Your task to perform on an android device: install app "Adobe Acrobat Reader: Edit PDF" Image 0: 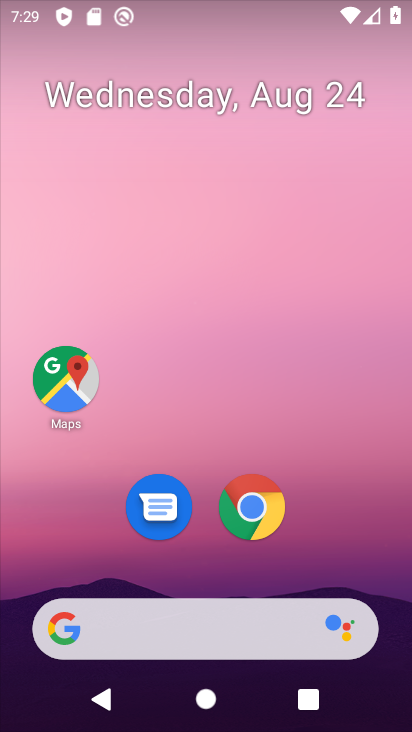
Step 0: drag from (381, 577) to (379, 60)
Your task to perform on an android device: install app "Adobe Acrobat Reader: Edit PDF" Image 1: 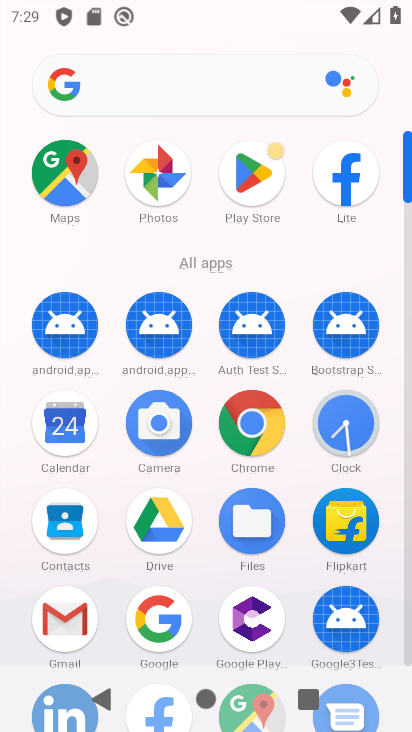
Step 1: click (251, 171)
Your task to perform on an android device: install app "Adobe Acrobat Reader: Edit PDF" Image 2: 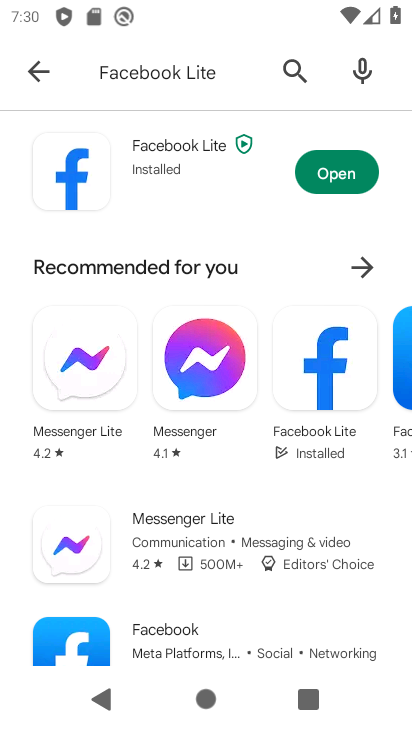
Step 2: press back button
Your task to perform on an android device: install app "Adobe Acrobat Reader: Edit PDF" Image 3: 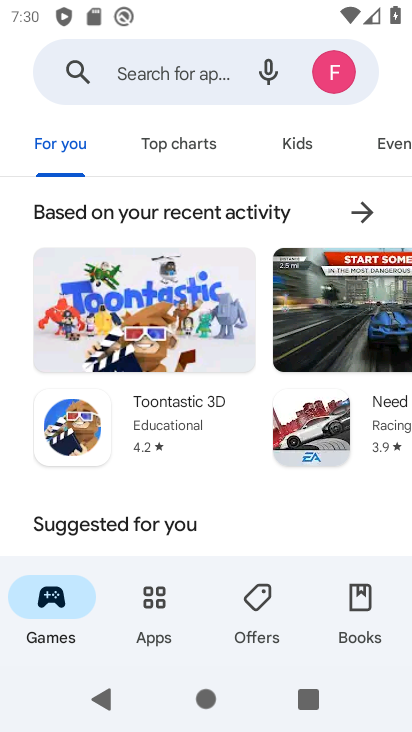
Step 3: click (161, 74)
Your task to perform on an android device: install app "Adobe Acrobat Reader: Edit PDF" Image 4: 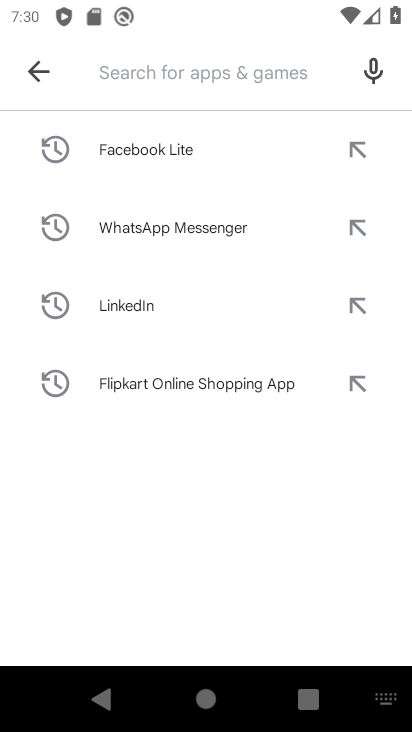
Step 4: type "Adobe Acrobat Reader: Edit PDF"
Your task to perform on an android device: install app "Adobe Acrobat Reader: Edit PDF" Image 5: 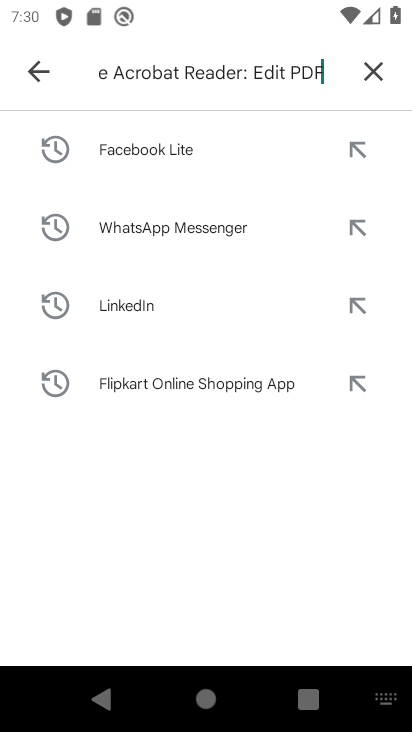
Step 5: press enter
Your task to perform on an android device: install app "Adobe Acrobat Reader: Edit PDF" Image 6: 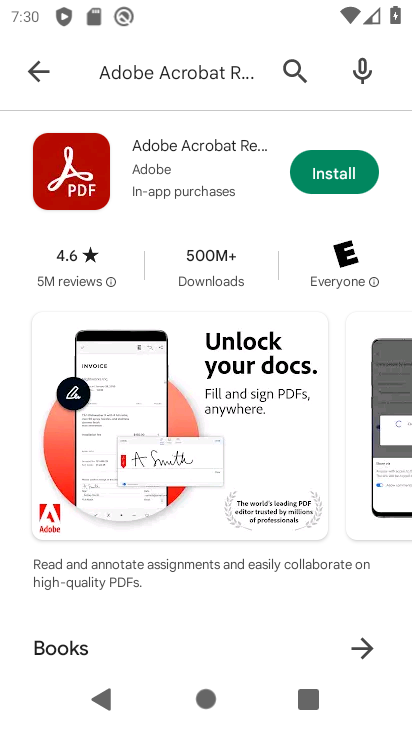
Step 6: click (335, 167)
Your task to perform on an android device: install app "Adobe Acrobat Reader: Edit PDF" Image 7: 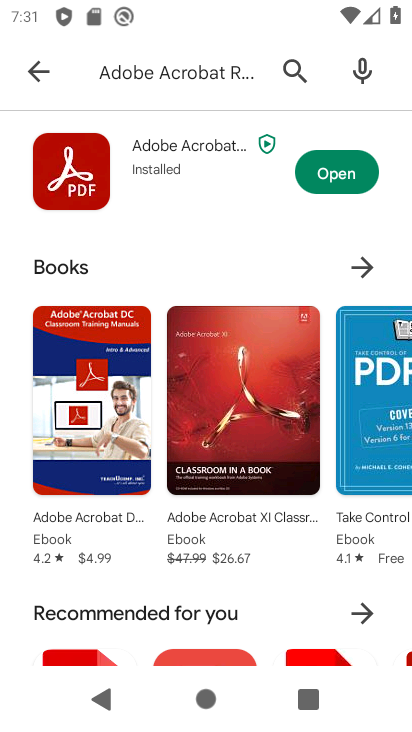
Step 7: task complete